Your task to perform on an android device: Open internet settings Image 0: 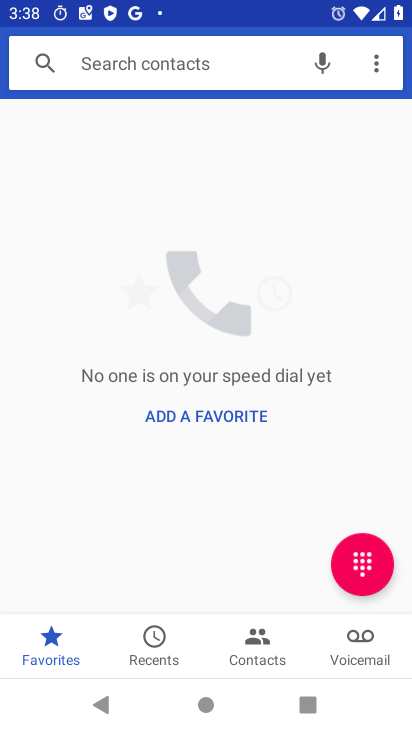
Step 0: press home button
Your task to perform on an android device: Open internet settings Image 1: 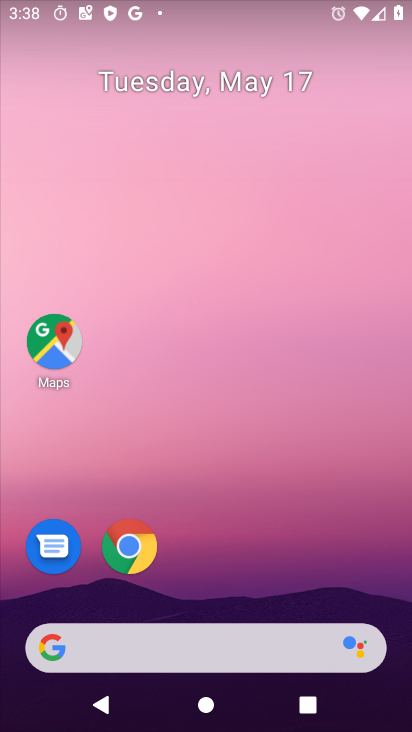
Step 1: drag from (398, 615) to (363, 338)
Your task to perform on an android device: Open internet settings Image 2: 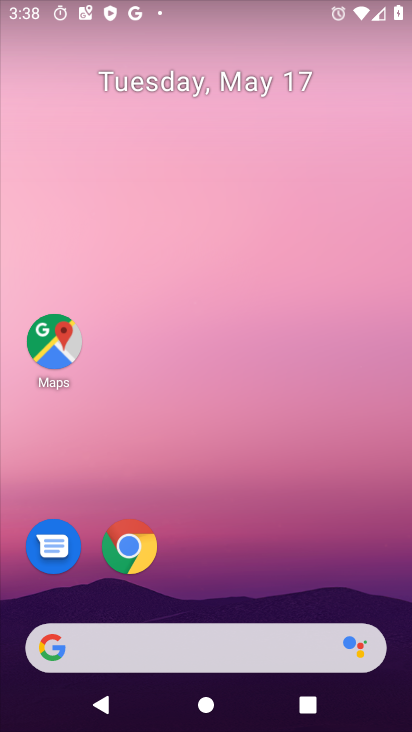
Step 2: drag from (394, 665) to (380, 445)
Your task to perform on an android device: Open internet settings Image 3: 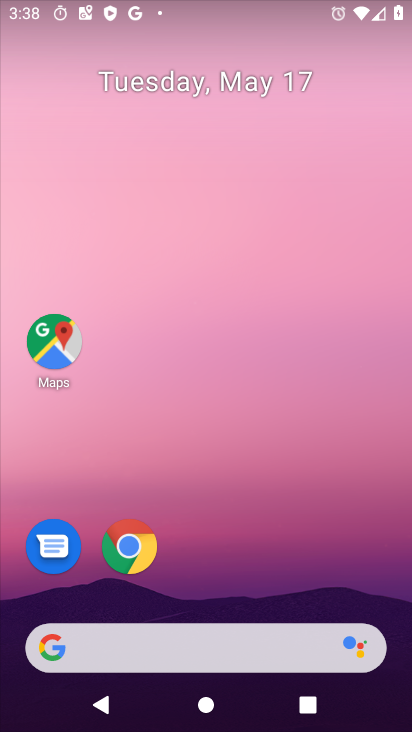
Step 3: drag from (395, 664) to (380, 313)
Your task to perform on an android device: Open internet settings Image 4: 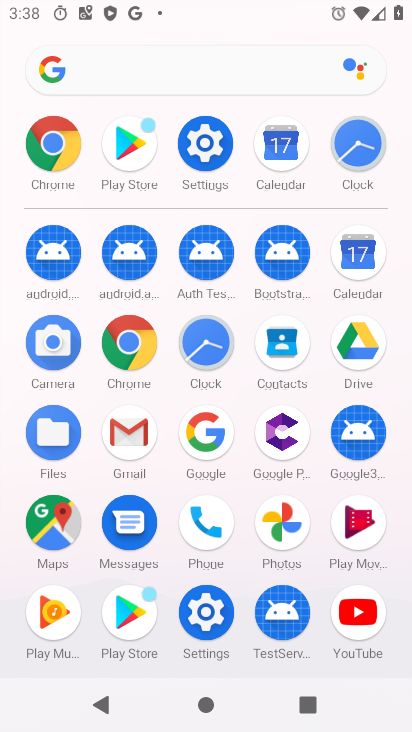
Step 4: click (201, 148)
Your task to perform on an android device: Open internet settings Image 5: 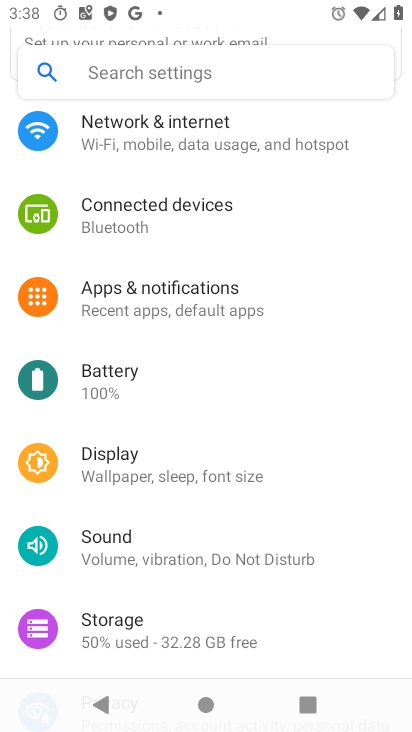
Step 5: click (147, 130)
Your task to perform on an android device: Open internet settings Image 6: 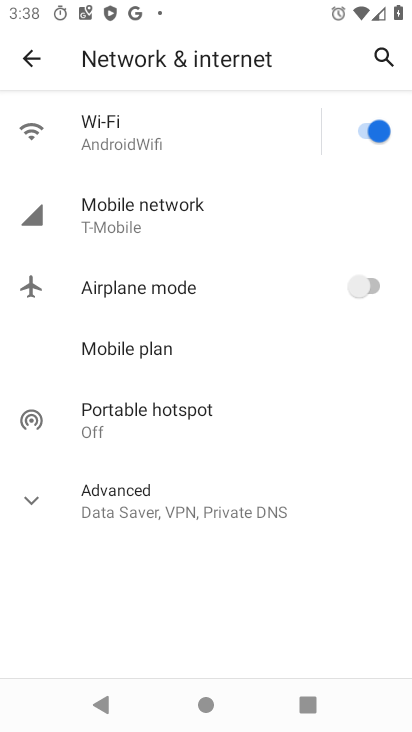
Step 6: click (128, 212)
Your task to perform on an android device: Open internet settings Image 7: 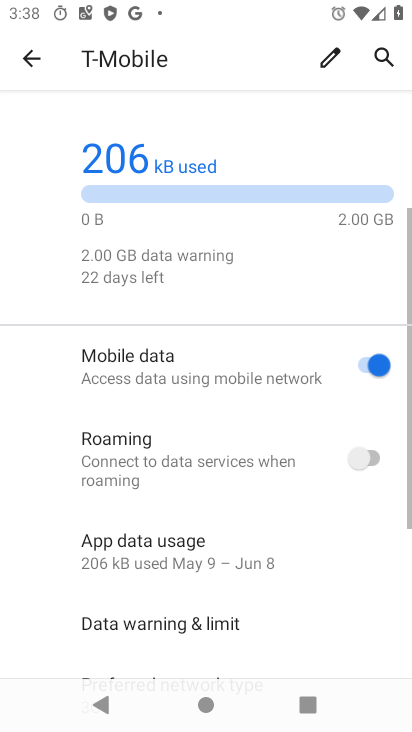
Step 7: task complete